Your task to perform on an android device: change the clock style Image 0: 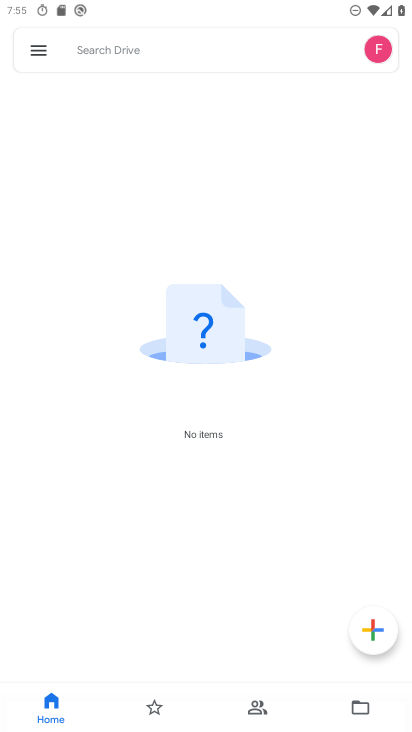
Step 0: press home button
Your task to perform on an android device: change the clock style Image 1: 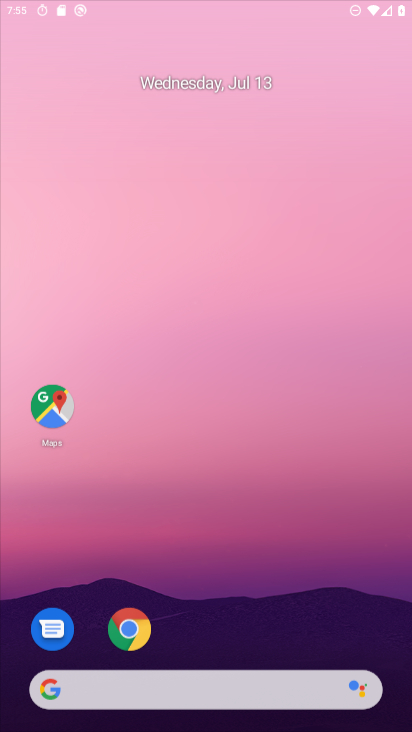
Step 1: drag from (394, 681) to (294, 18)
Your task to perform on an android device: change the clock style Image 2: 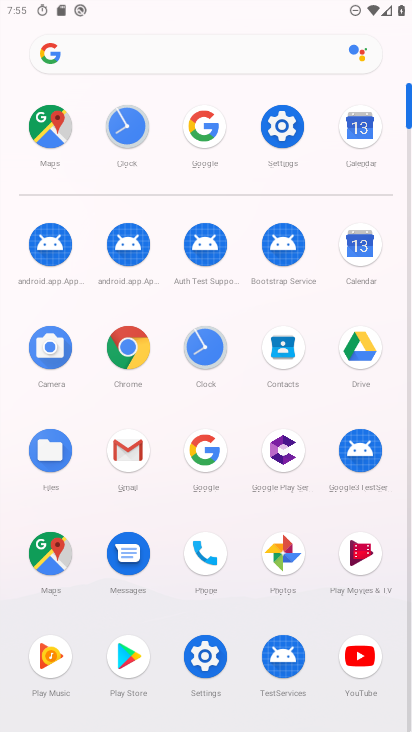
Step 2: click (119, 141)
Your task to perform on an android device: change the clock style Image 3: 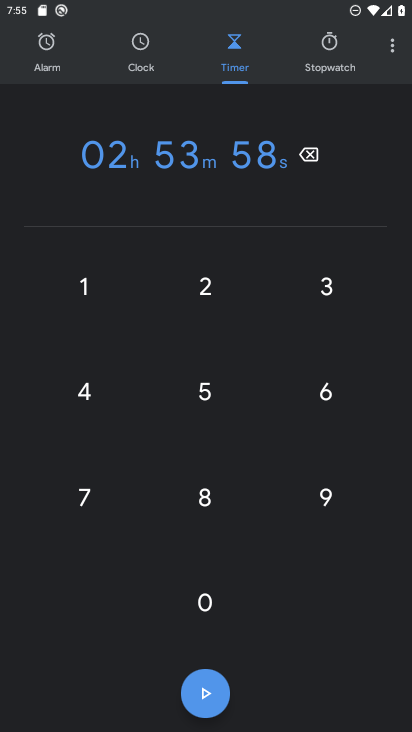
Step 3: click (382, 47)
Your task to perform on an android device: change the clock style Image 4: 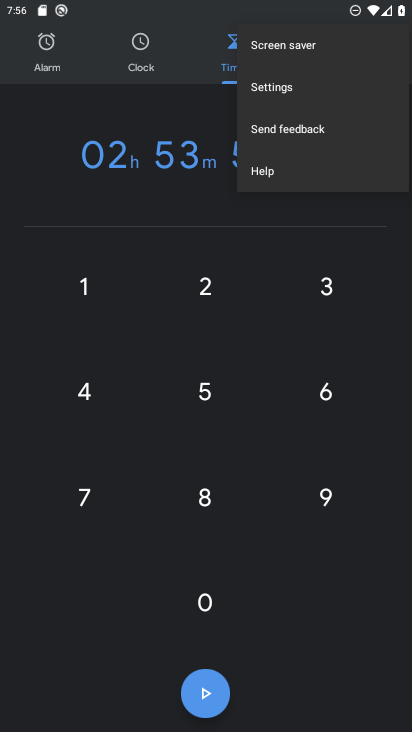
Step 4: click (276, 92)
Your task to perform on an android device: change the clock style Image 5: 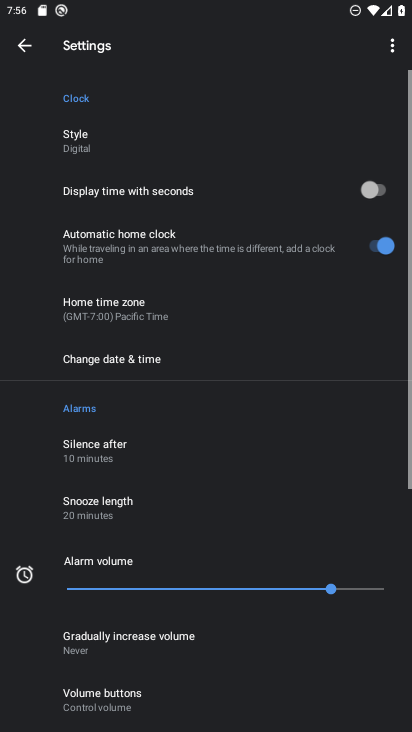
Step 5: click (78, 127)
Your task to perform on an android device: change the clock style Image 6: 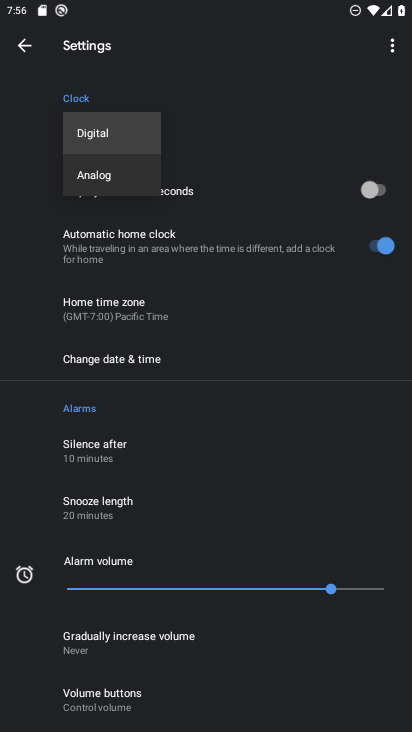
Step 6: click (87, 176)
Your task to perform on an android device: change the clock style Image 7: 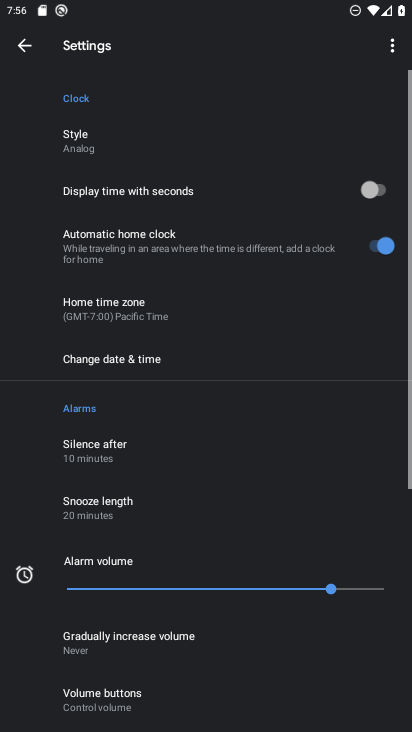
Step 7: task complete